Your task to perform on an android device: turn off picture-in-picture Image 0: 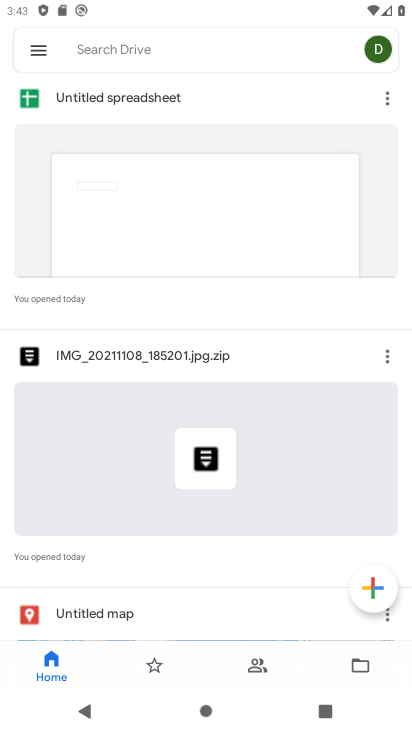
Step 0: press home button
Your task to perform on an android device: turn off picture-in-picture Image 1: 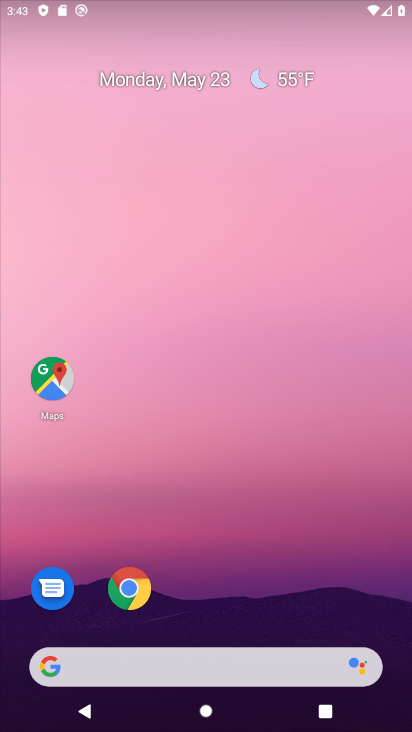
Step 1: click (136, 585)
Your task to perform on an android device: turn off picture-in-picture Image 2: 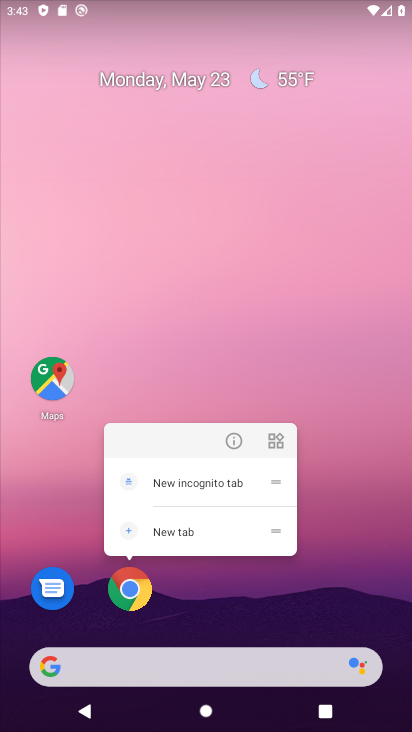
Step 2: click (228, 450)
Your task to perform on an android device: turn off picture-in-picture Image 3: 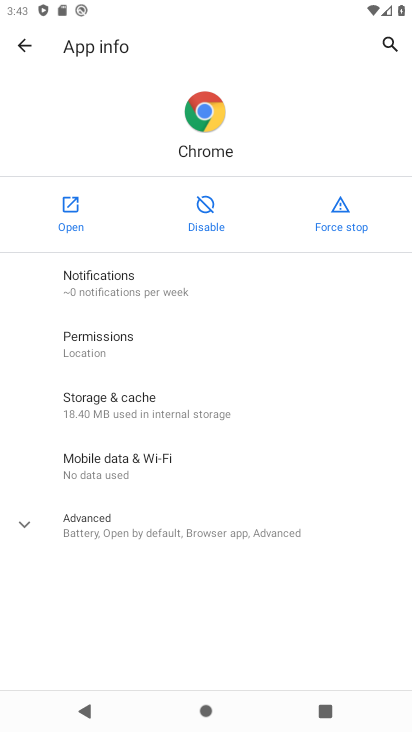
Step 3: click (128, 536)
Your task to perform on an android device: turn off picture-in-picture Image 4: 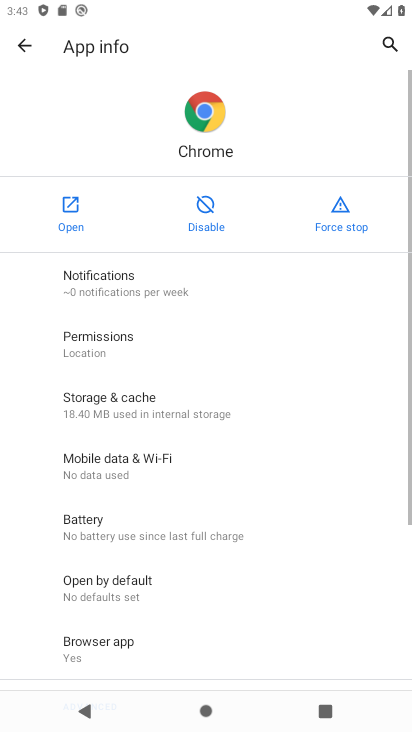
Step 4: drag from (157, 642) to (149, 259)
Your task to perform on an android device: turn off picture-in-picture Image 5: 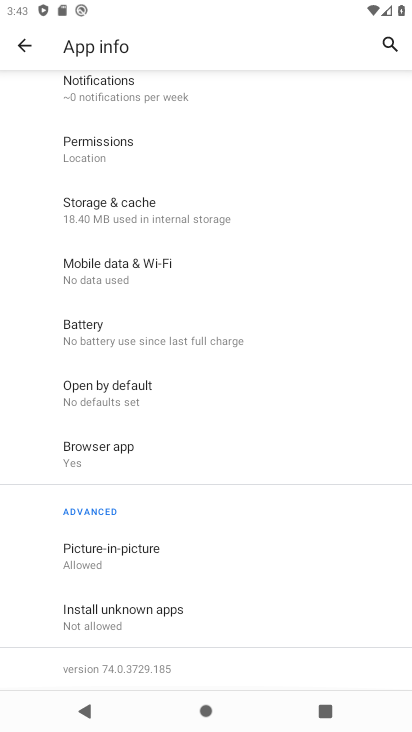
Step 5: click (121, 560)
Your task to perform on an android device: turn off picture-in-picture Image 6: 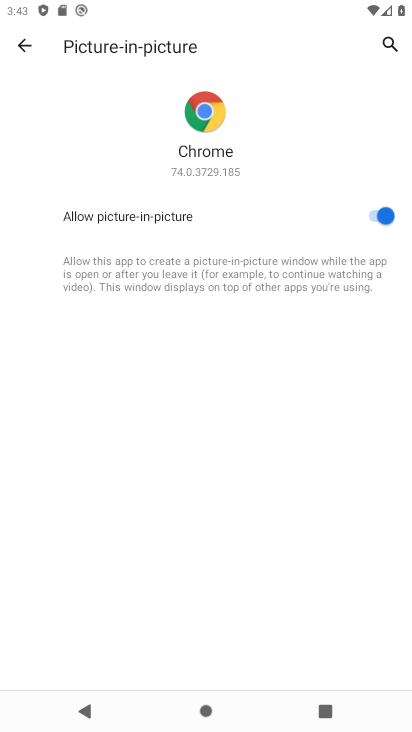
Step 6: click (389, 229)
Your task to perform on an android device: turn off picture-in-picture Image 7: 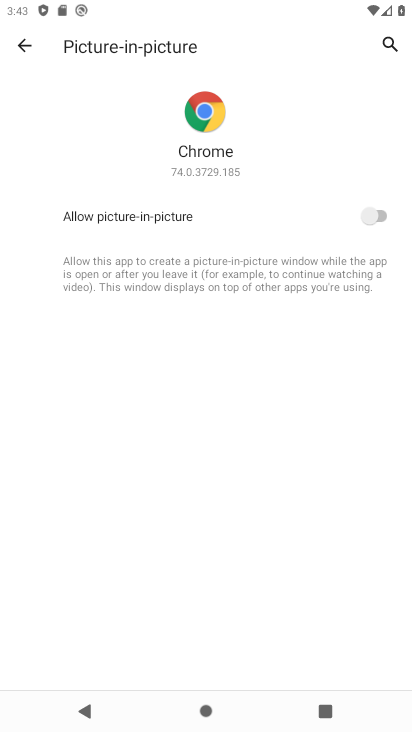
Step 7: task complete